Your task to perform on an android device: open chrome and create a bookmark for the current page Image 0: 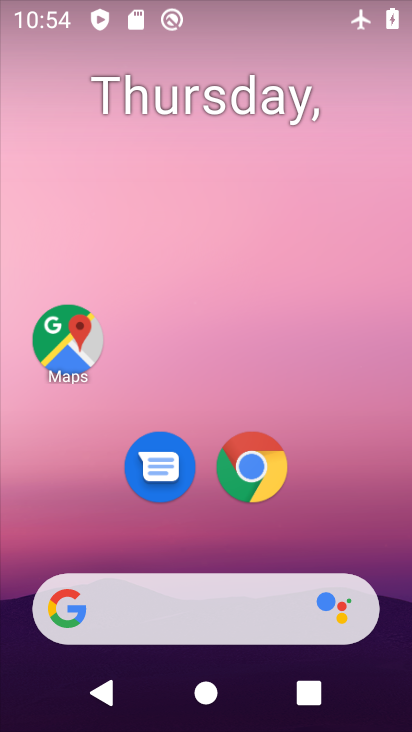
Step 0: click (256, 474)
Your task to perform on an android device: open chrome and create a bookmark for the current page Image 1: 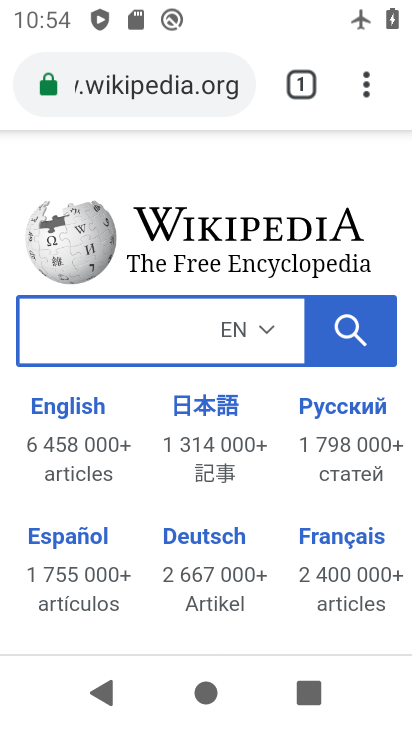
Step 1: click (367, 89)
Your task to perform on an android device: open chrome and create a bookmark for the current page Image 2: 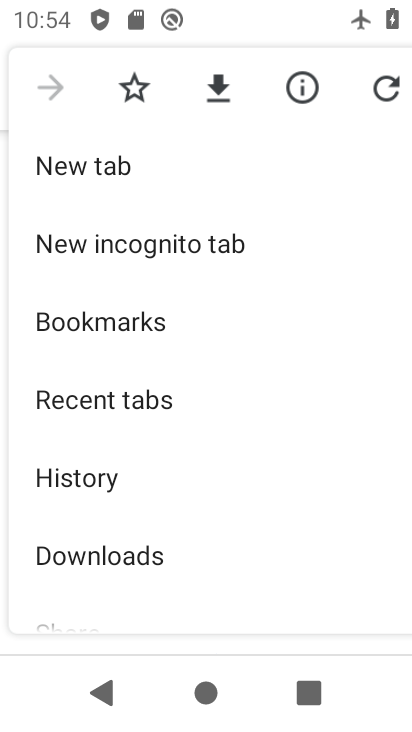
Step 2: click (146, 88)
Your task to perform on an android device: open chrome and create a bookmark for the current page Image 3: 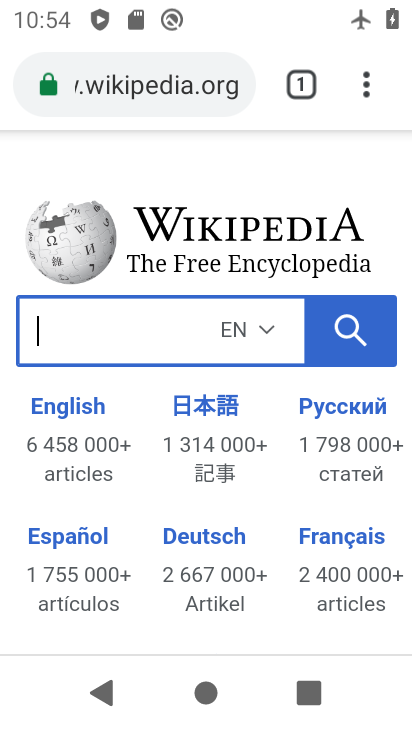
Step 3: task complete